Your task to perform on an android device: Show me recent news Image 0: 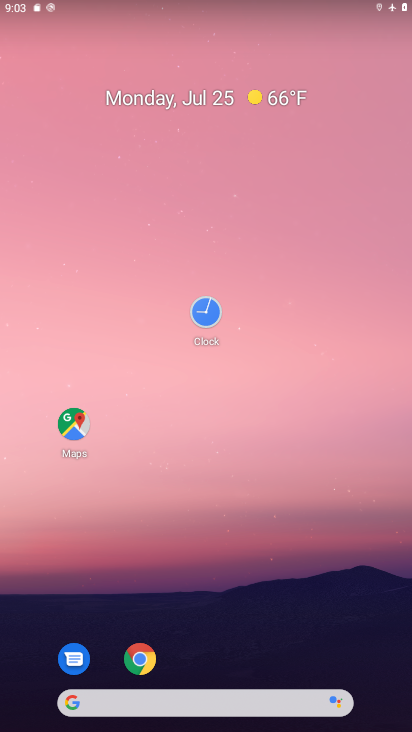
Step 0: drag from (298, 699) to (247, 213)
Your task to perform on an android device: Show me recent news Image 1: 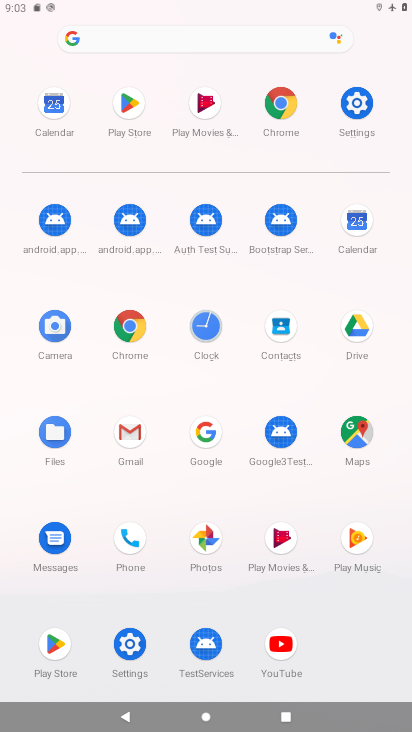
Step 1: click (267, 123)
Your task to perform on an android device: Show me recent news Image 2: 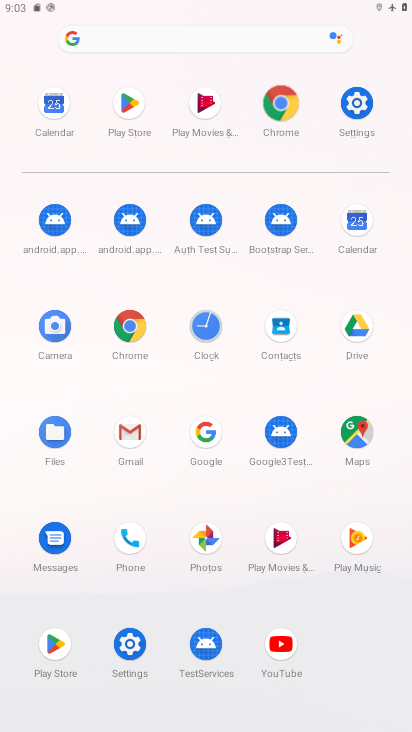
Step 2: click (279, 117)
Your task to perform on an android device: Show me recent news Image 3: 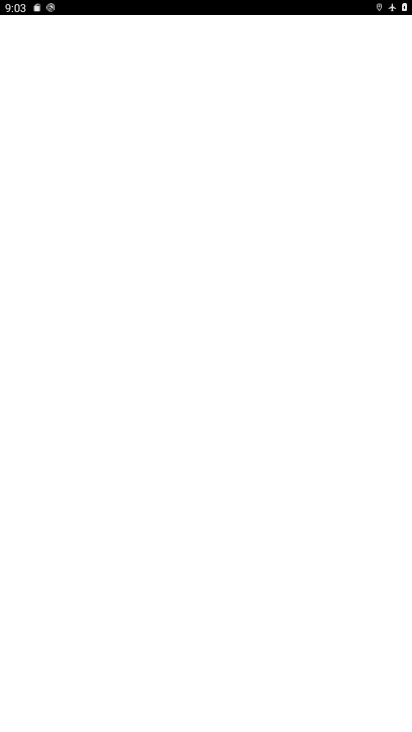
Step 3: click (279, 116)
Your task to perform on an android device: Show me recent news Image 4: 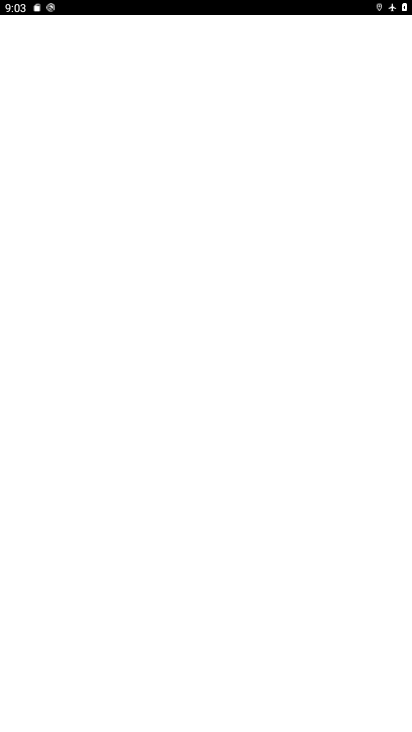
Step 4: click (279, 115)
Your task to perform on an android device: Show me recent news Image 5: 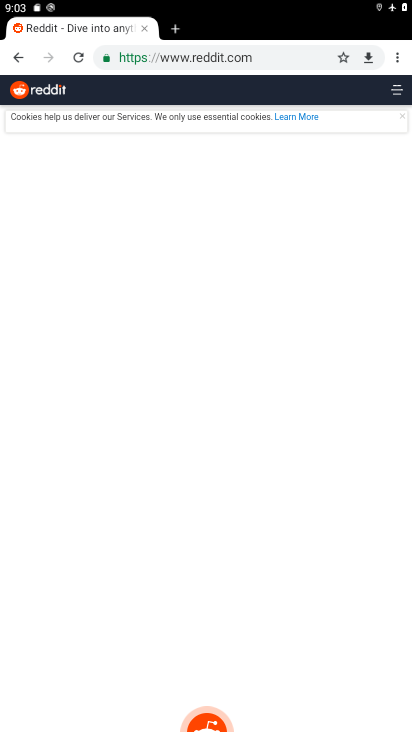
Step 5: click (75, 59)
Your task to perform on an android device: Show me recent news Image 6: 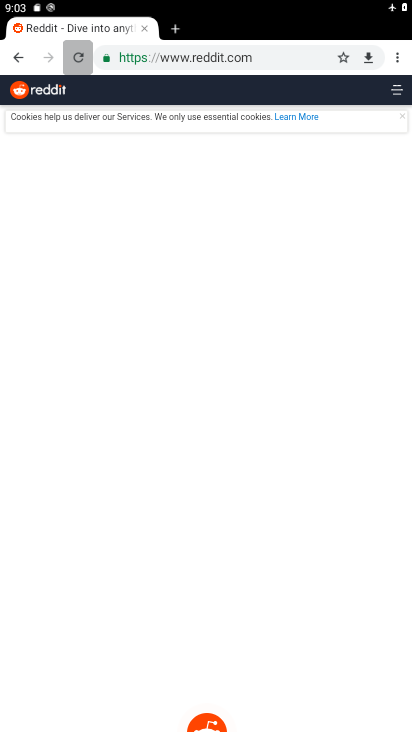
Step 6: click (78, 58)
Your task to perform on an android device: Show me recent news Image 7: 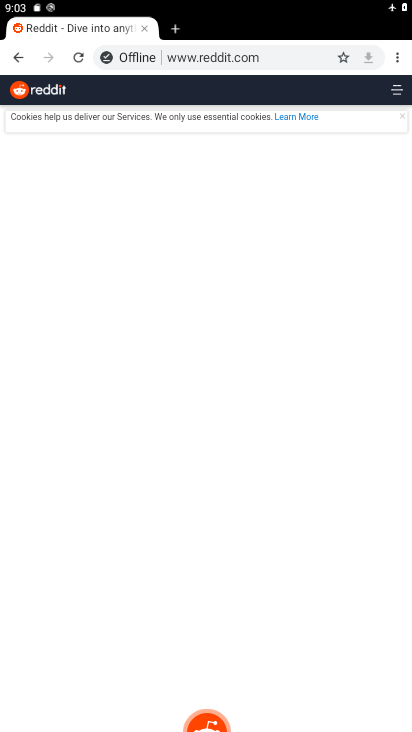
Step 7: click (78, 57)
Your task to perform on an android device: Show me recent news Image 8: 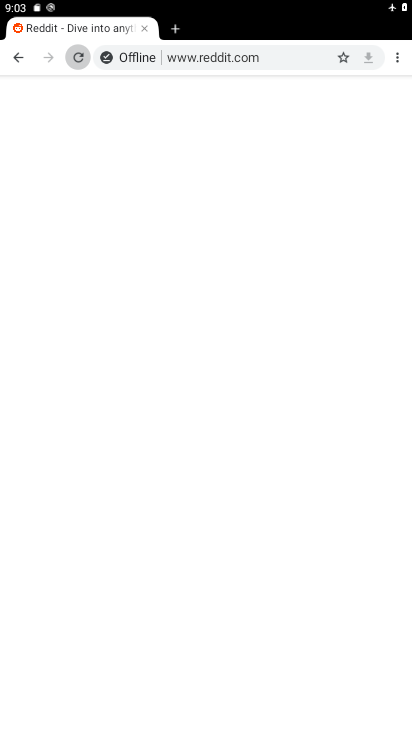
Step 8: click (79, 59)
Your task to perform on an android device: Show me recent news Image 9: 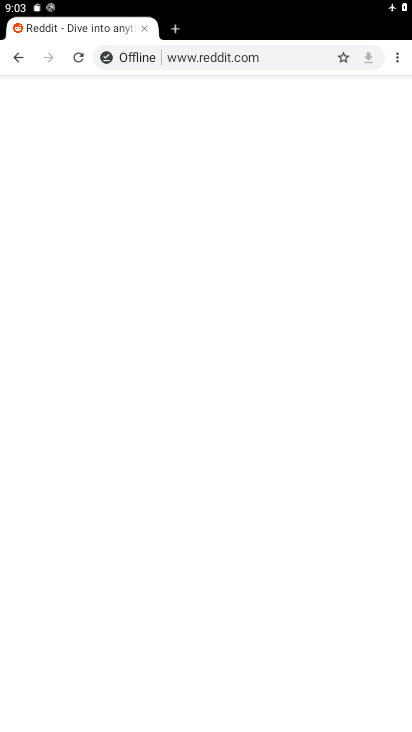
Step 9: click (80, 64)
Your task to perform on an android device: Show me recent news Image 10: 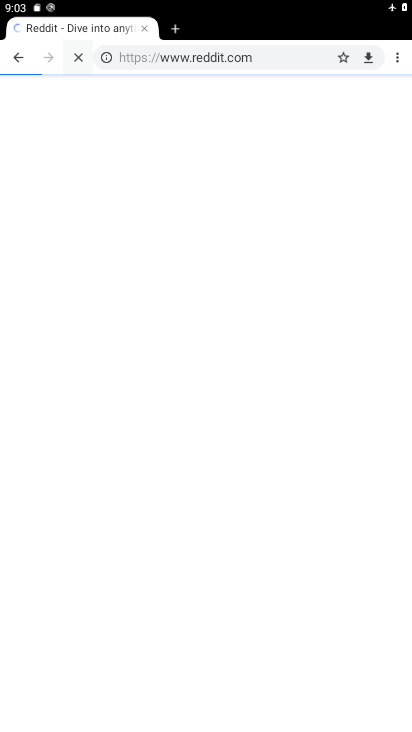
Step 10: click (81, 63)
Your task to perform on an android device: Show me recent news Image 11: 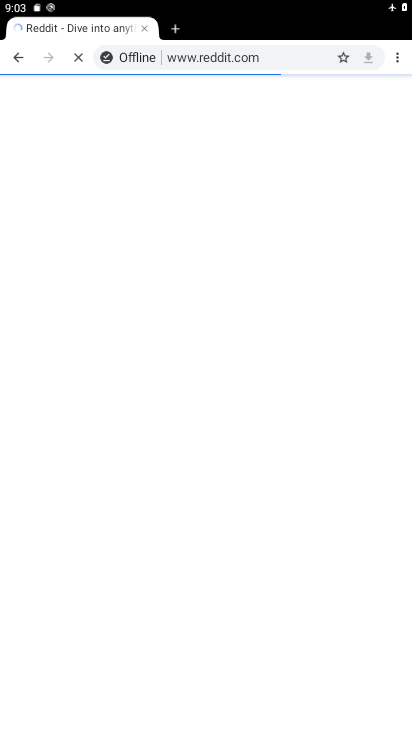
Step 11: click (85, 65)
Your task to perform on an android device: Show me recent news Image 12: 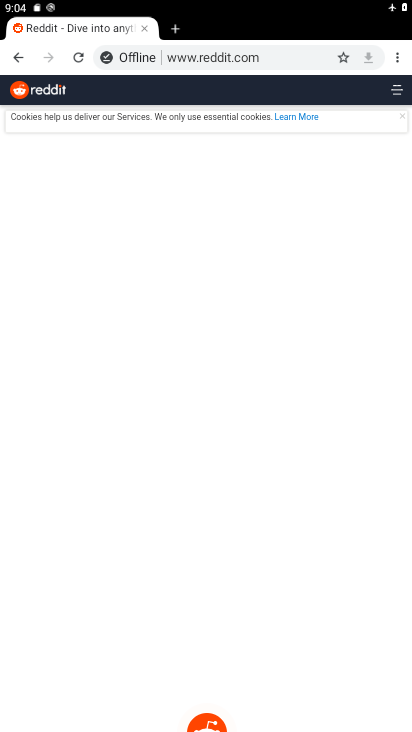
Step 12: task complete